Your task to perform on an android device: Open Youtube and go to "Your channel" Image 0: 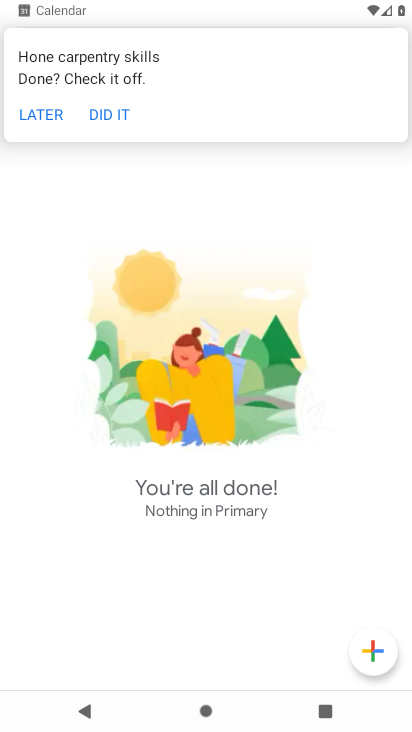
Step 0: press home button
Your task to perform on an android device: Open Youtube and go to "Your channel" Image 1: 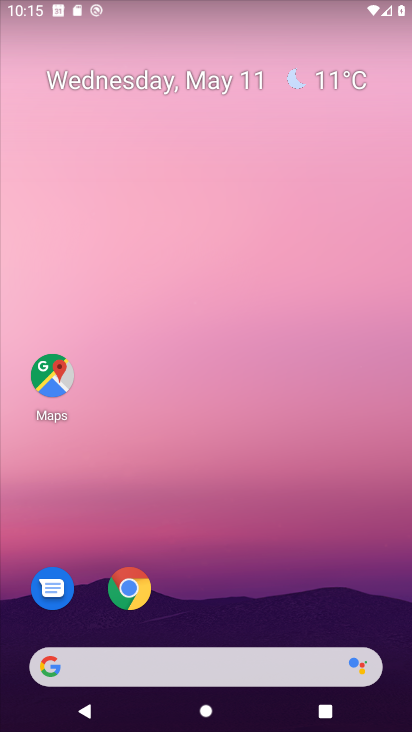
Step 1: drag from (265, 578) to (264, 157)
Your task to perform on an android device: Open Youtube and go to "Your channel" Image 2: 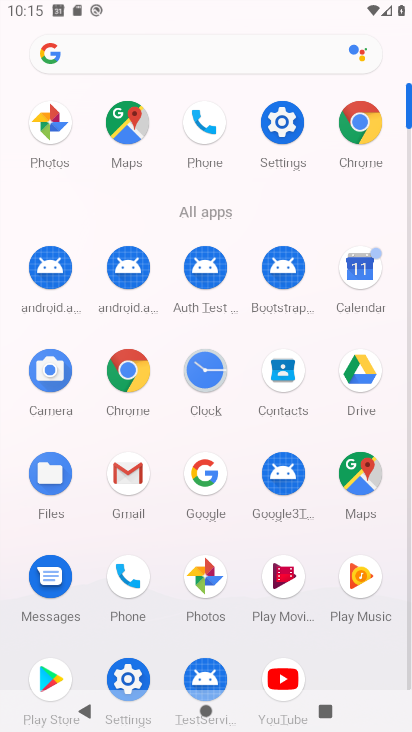
Step 2: drag from (302, 621) to (319, 483)
Your task to perform on an android device: Open Youtube and go to "Your channel" Image 3: 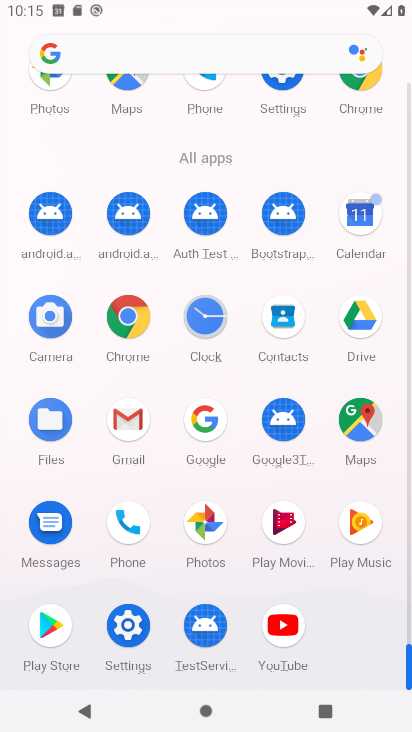
Step 3: click (288, 618)
Your task to perform on an android device: Open Youtube and go to "Your channel" Image 4: 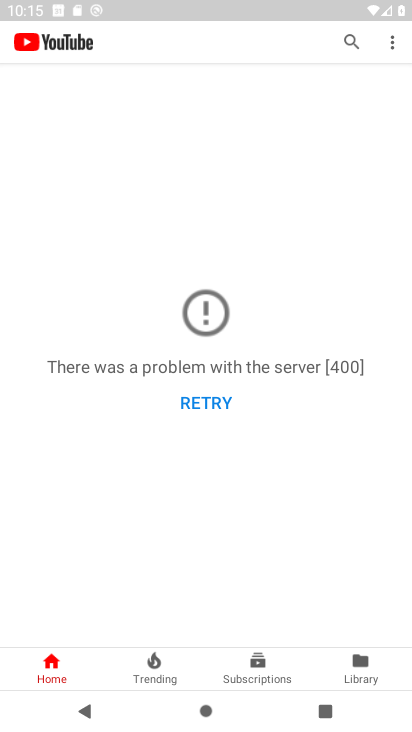
Step 4: click (385, 48)
Your task to perform on an android device: Open Youtube and go to "Your channel" Image 5: 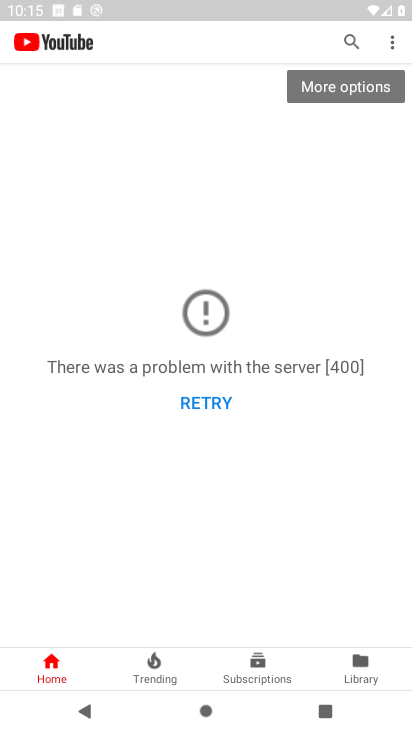
Step 5: click (380, 86)
Your task to perform on an android device: Open Youtube and go to "Your channel" Image 6: 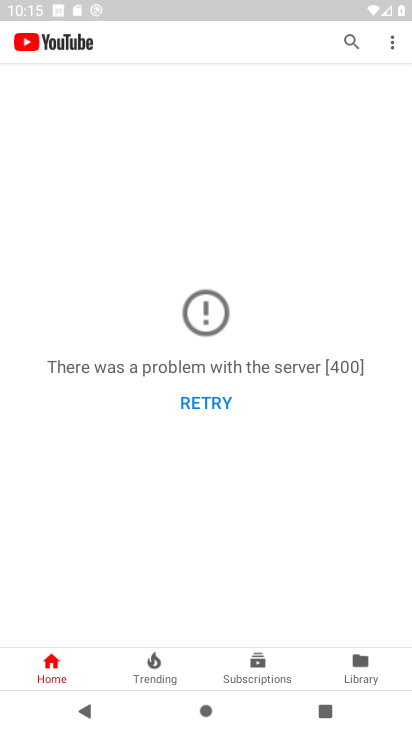
Step 6: click (392, 44)
Your task to perform on an android device: Open Youtube and go to "Your channel" Image 7: 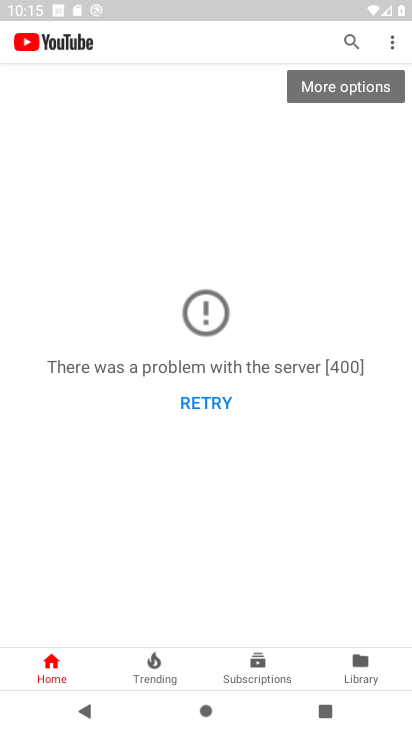
Step 7: click (364, 87)
Your task to perform on an android device: Open Youtube and go to "Your channel" Image 8: 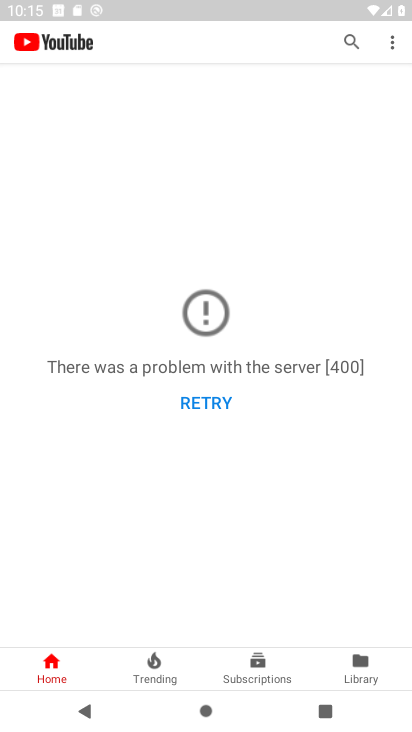
Step 8: click (212, 402)
Your task to perform on an android device: Open Youtube and go to "Your channel" Image 9: 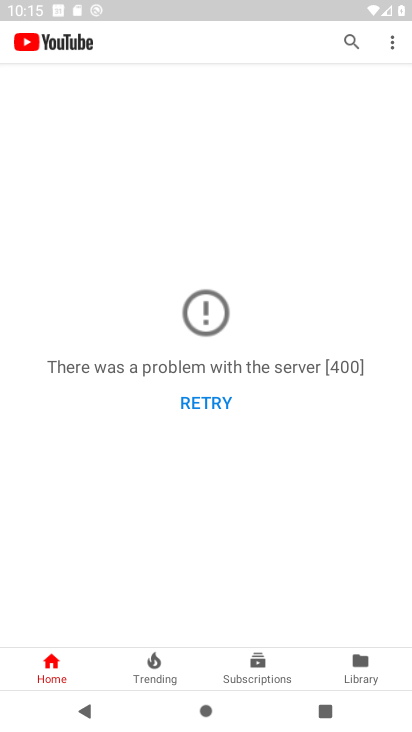
Step 9: task complete